Your task to perform on an android device: toggle show notifications on the lock screen Image 0: 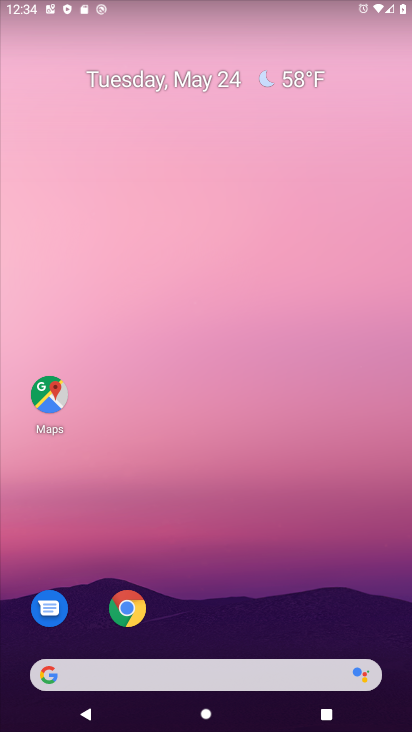
Step 0: press home button
Your task to perform on an android device: toggle show notifications on the lock screen Image 1: 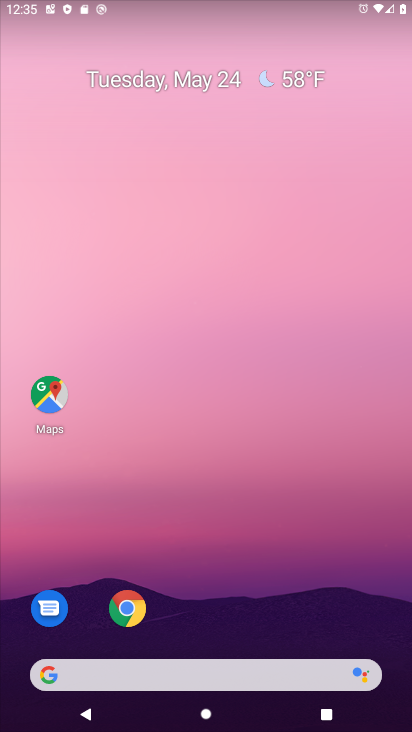
Step 1: drag from (237, 689) to (295, 152)
Your task to perform on an android device: toggle show notifications on the lock screen Image 2: 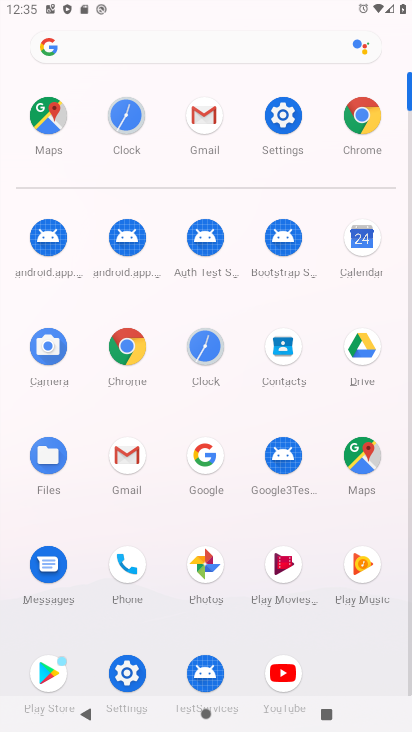
Step 2: click (272, 123)
Your task to perform on an android device: toggle show notifications on the lock screen Image 3: 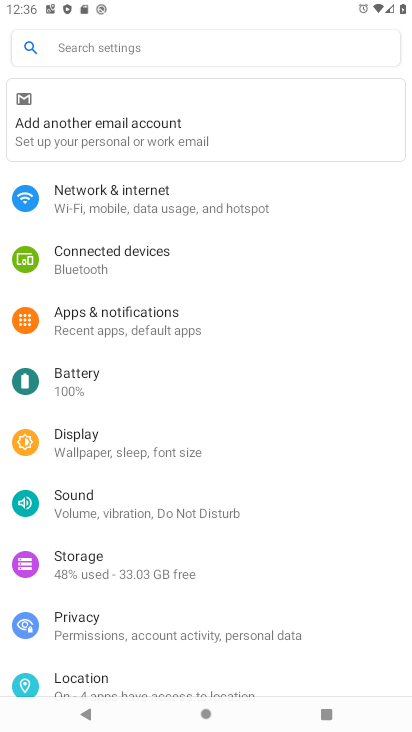
Step 3: click (151, 43)
Your task to perform on an android device: toggle show notifications on the lock screen Image 4: 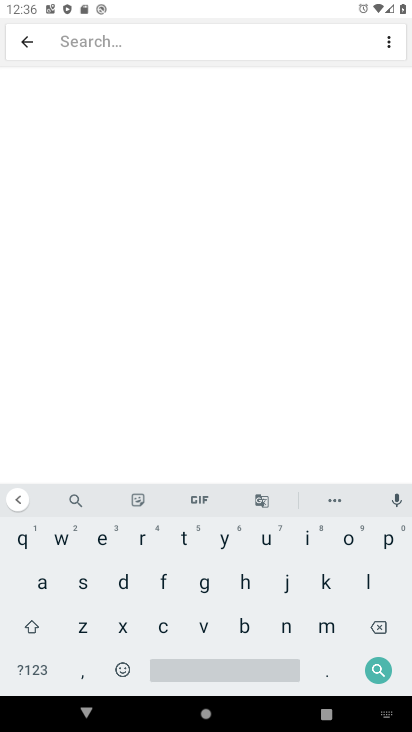
Step 4: click (283, 631)
Your task to perform on an android device: toggle show notifications on the lock screen Image 5: 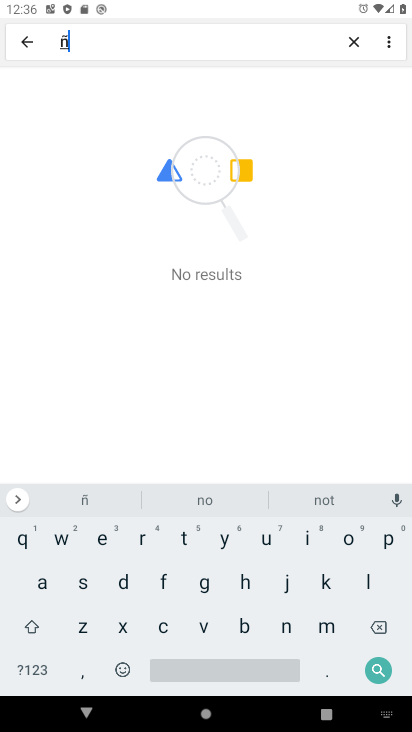
Step 5: click (377, 636)
Your task to perform on an android device: toggle show notifications on the lock screen Image 6: 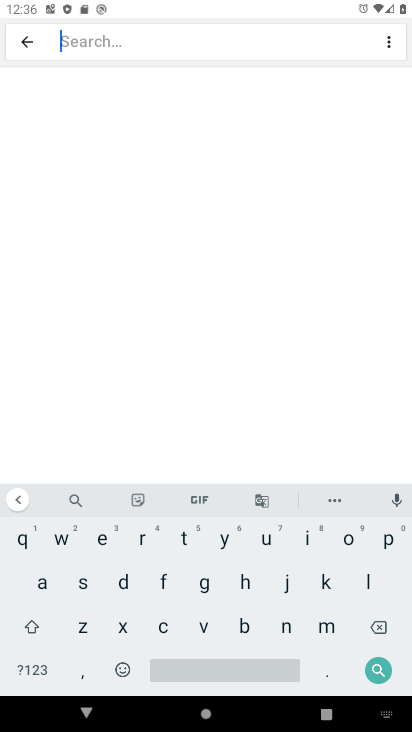
Step 6: click (281, 628)
Your task to perform on an android device: toggle show notifications on the lock screen Image 7: 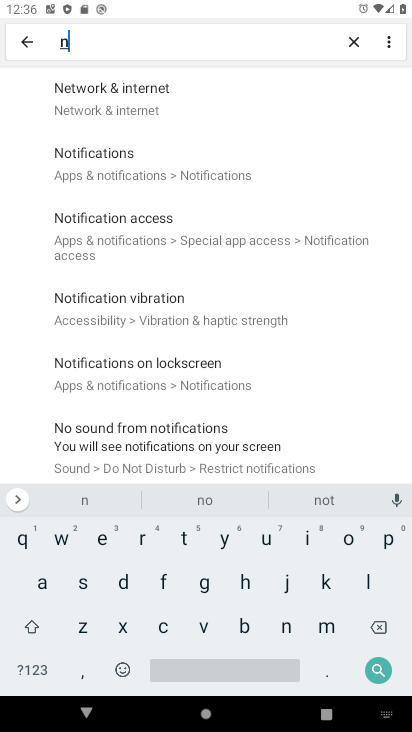
Step 7: click (350, 539)
Your task to perform on an android device: toggle show notifications on the lock screen Image 8: 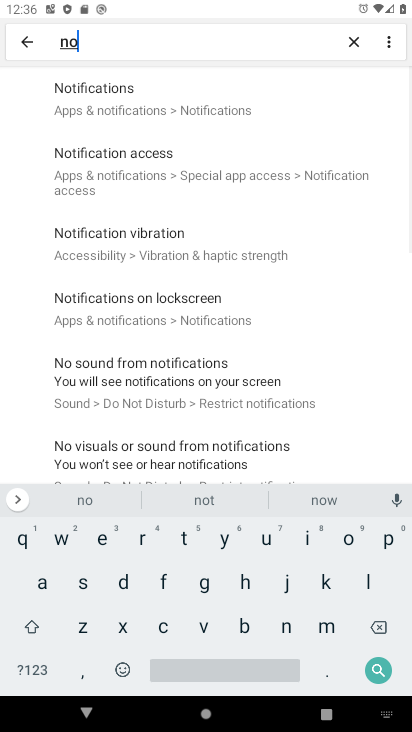
Step 8: click (143, 106)
Your task to perform on an android device: toggle show notifications on the lock screen Image 9: 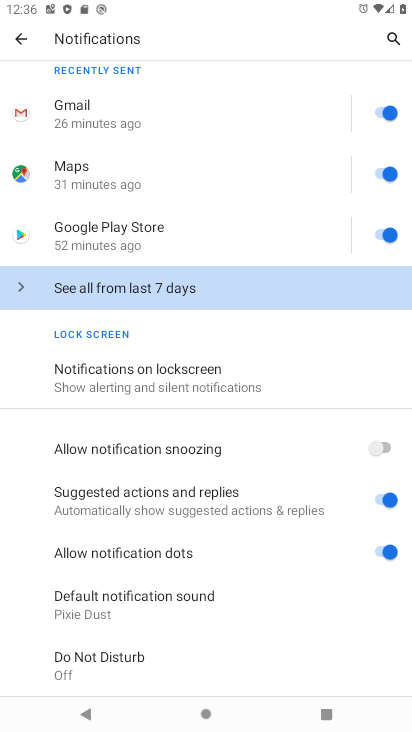
Step 9: click (178, 374)
Your task to perform on an android device: toggle show notifications on the lock screen Image 10: 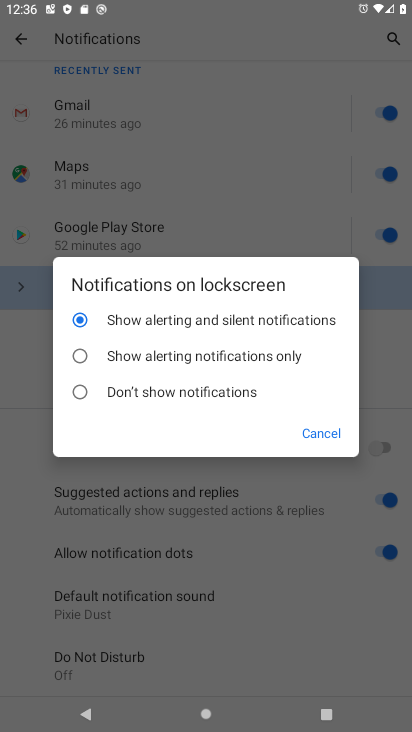
Step 10: task complete